Your task to perform on an android device: Open battery settings Image 0: 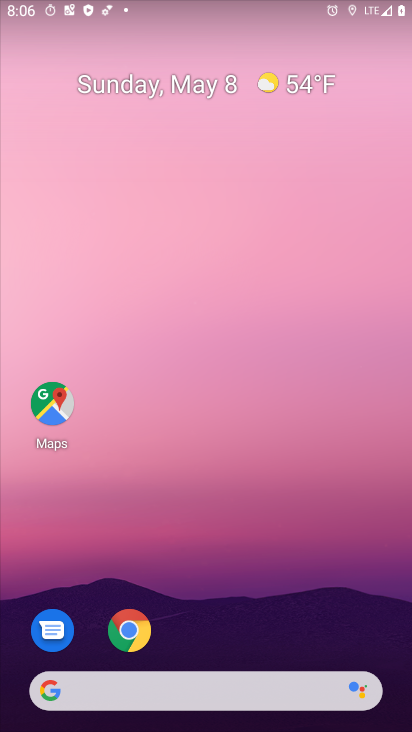
Step 0: drag from (198, 668) to (105, 48)
Your task to perform on an android device: Open battery settings Image 1: 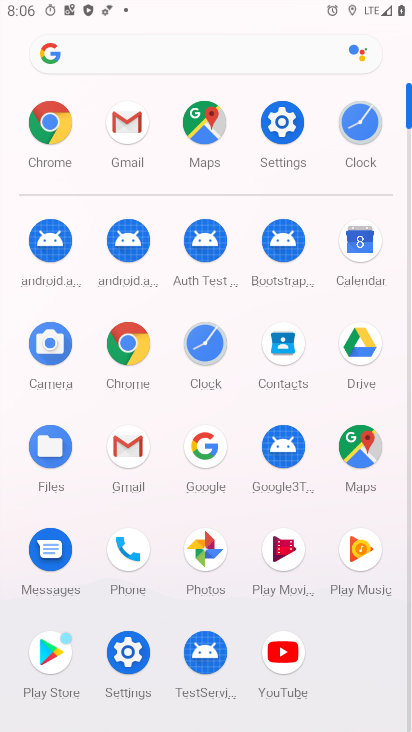
Step 1: click (281, 125)
Your task to perform on an android device: Open battery settings Image 2: 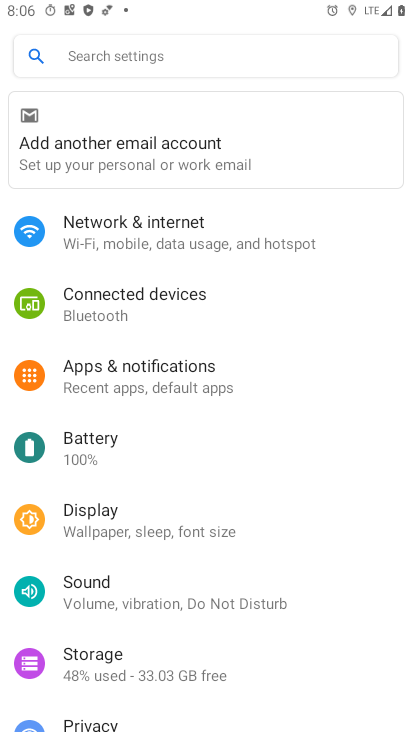
Step 2: click (93, 456)
Your task to perform on an android device: Open battery settings Image 3: 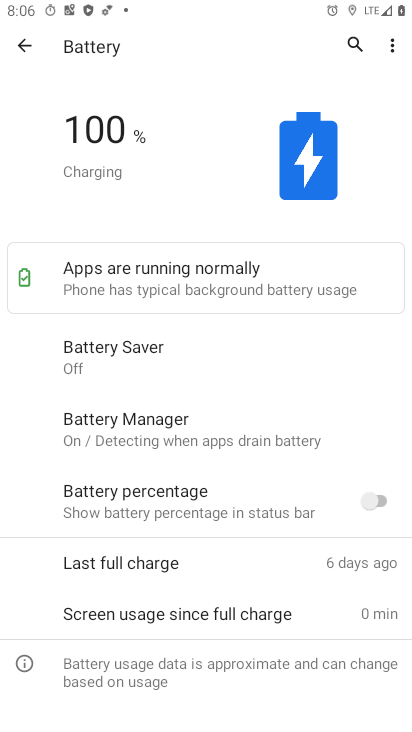
Step 3: task complete